Your task to perform on an android device: What's the weather? Image 0: 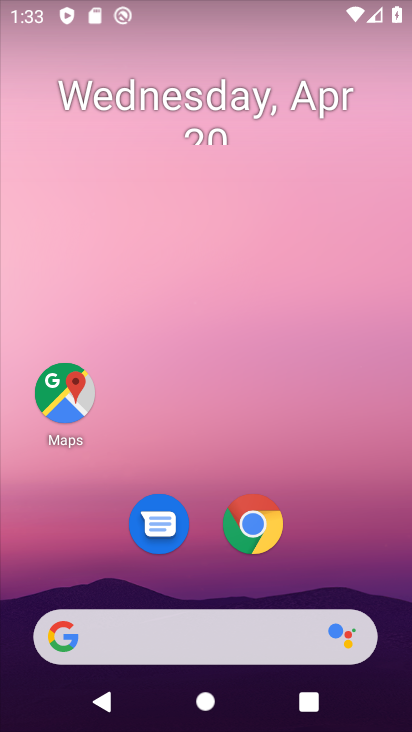
Step 0: press home button
Your task to perform on an android device: What's the weather? Image 1: 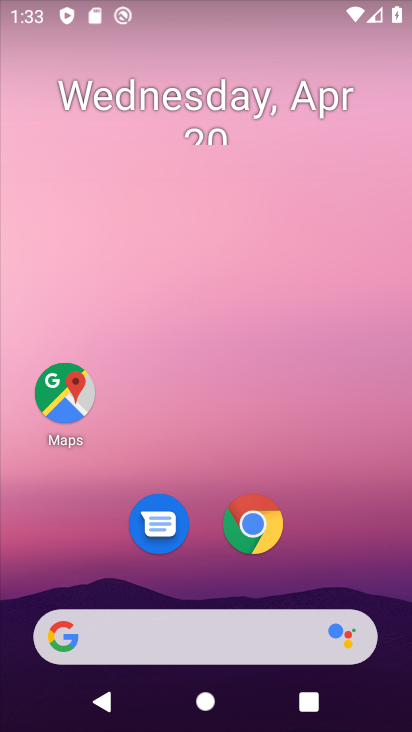
Step 1: click (253, 634)
Your task to perform on an android device: What's the weather? Image 2: 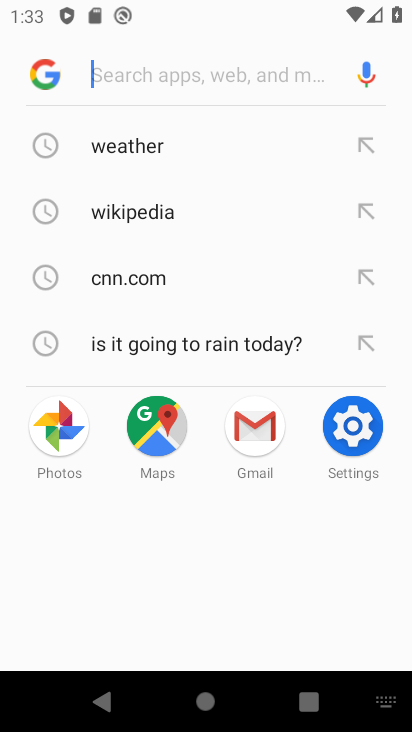
Step 2: click (144, 147)
Your task to perform on an android device: What's the weather? Image 3: 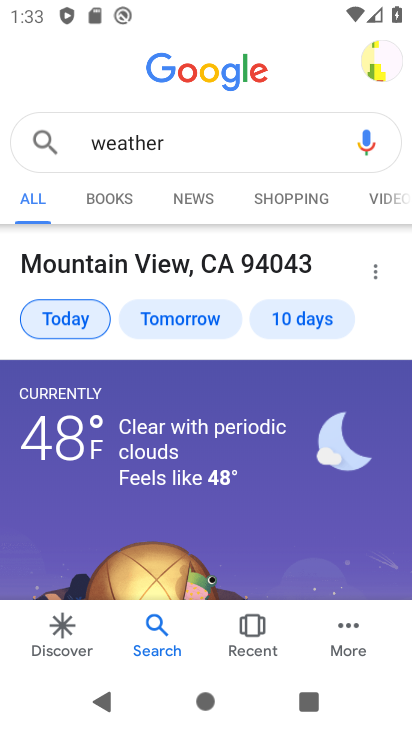
Step 3: task complete